Your task to perform on an android device: turn on javascript in the chrome app Image 0: 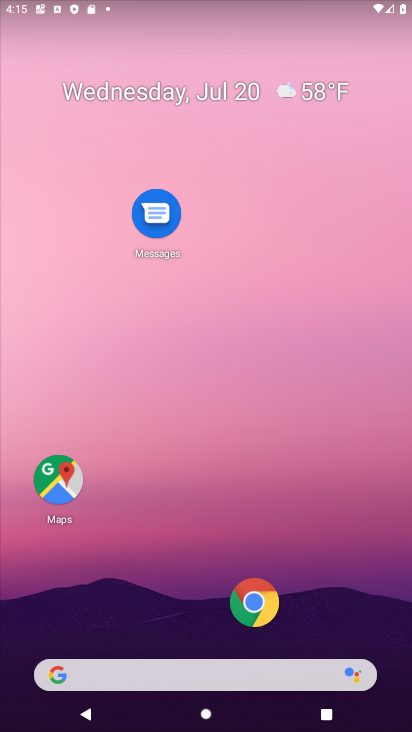
Step 0: click (249, 610)
Your task to perform on an android device: turn on javascript in the chrome app Image 1: 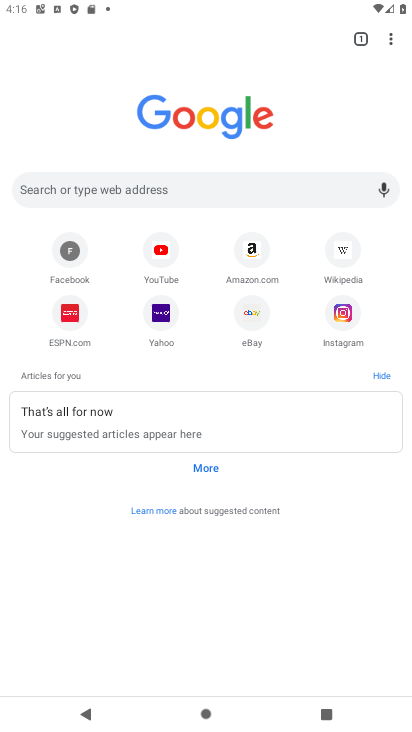
Step 1: click (385, 42)
Your task to perform on an android device: turn on javascript in the chrome app Image 2: 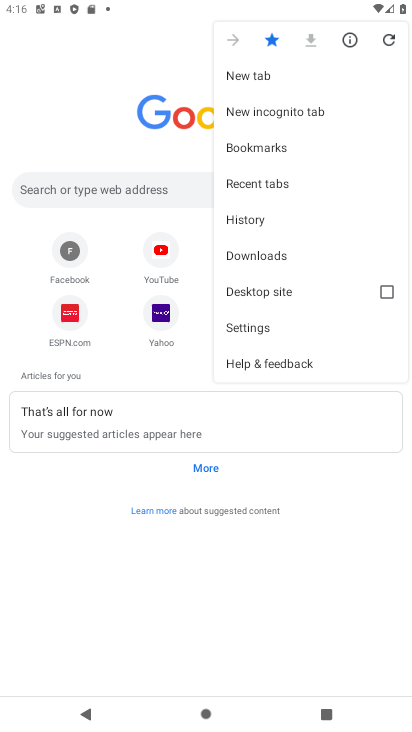
Step 2: click (248, 318)
Your task to perform on an android device: turn on javascript in the chrome app Image 3: 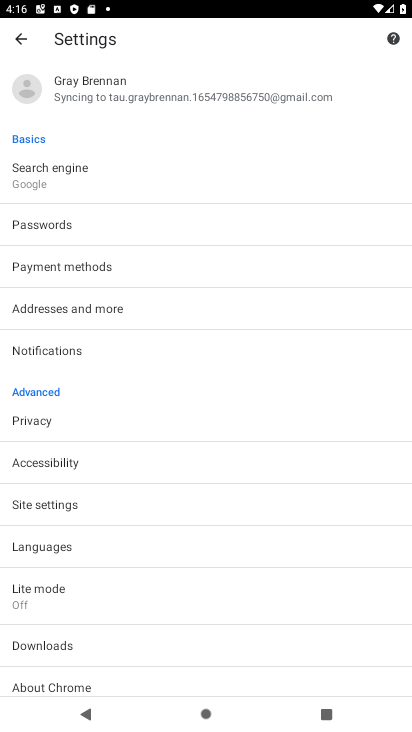
Step 3: click (44, 511)
Your task to perform on an android device: turn on javascript in the chrome app Image 4: 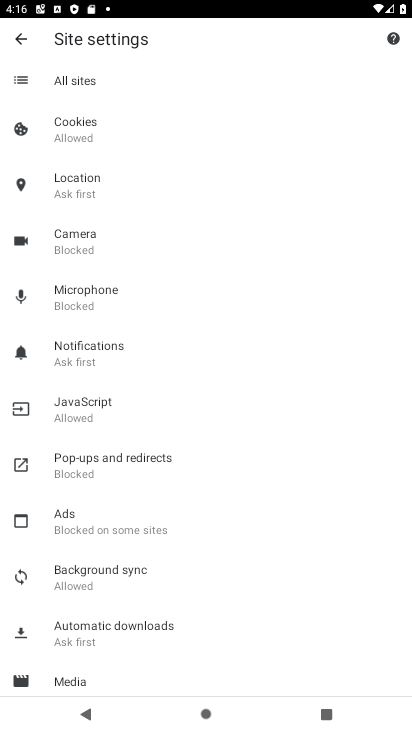
Step 4: click (82, 418)
Your task to perform on an android device: turn on javascript in the chrome app Image 5: 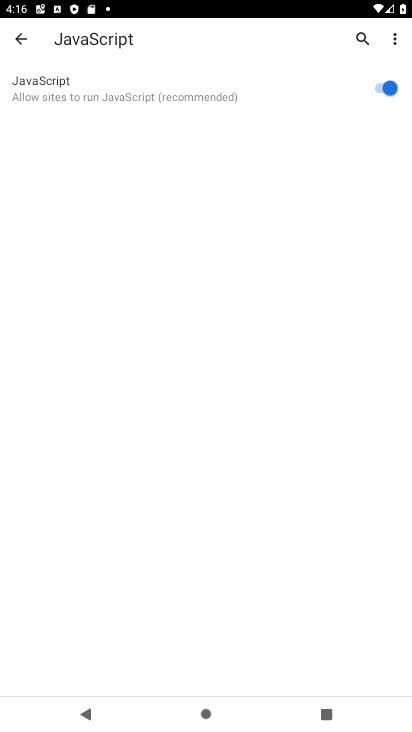
Step 5: task complete